Your task to perform on an android device: Go to notification settings Image 0: 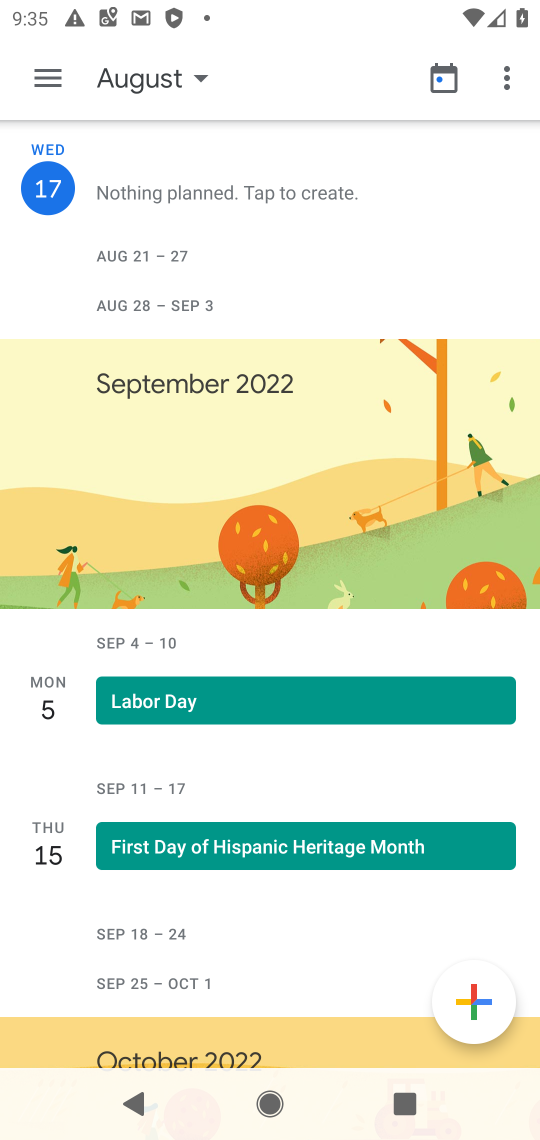
Step 0: press home button
Your task to perform on an android device: Go to notification settings Image 1: 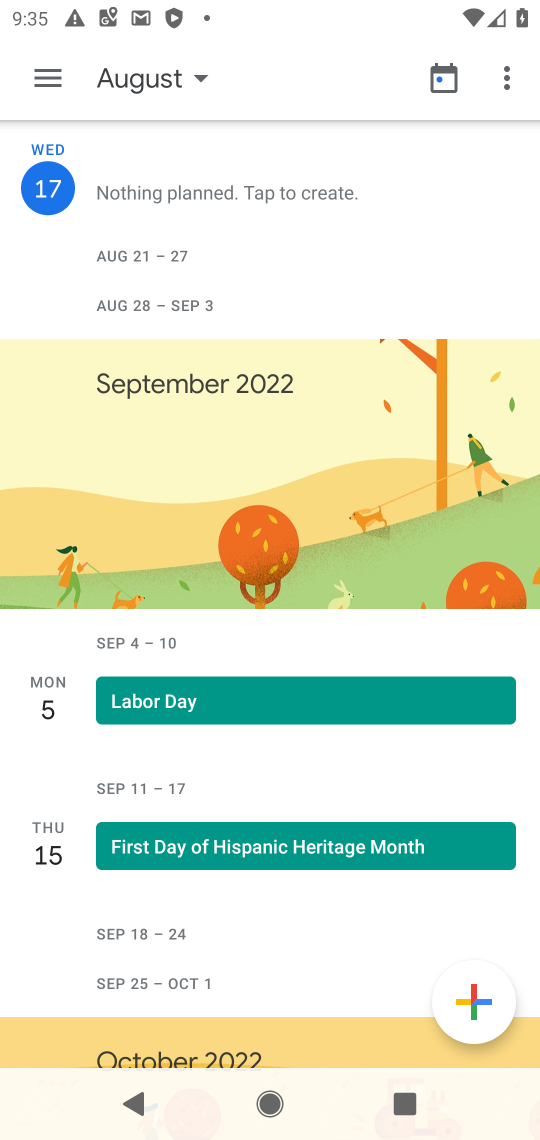
Step 1: press home button
Your task to perform on an android device: Go to notification settings Image 2: 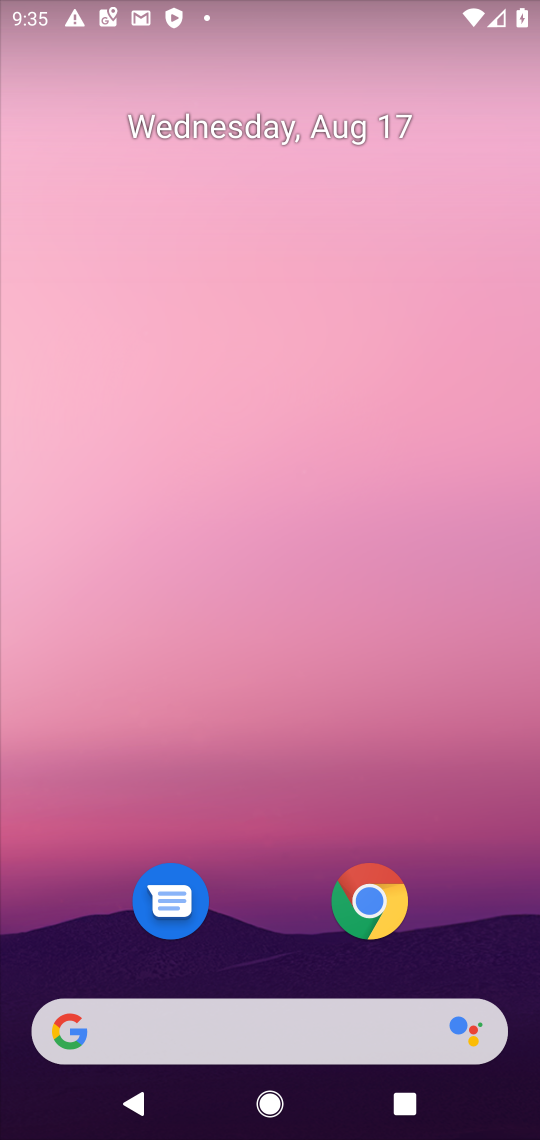
Step 2: drag from (308, 918) to (344, 29)
Your task to perform on an android device: Go to notification settings Image 3: 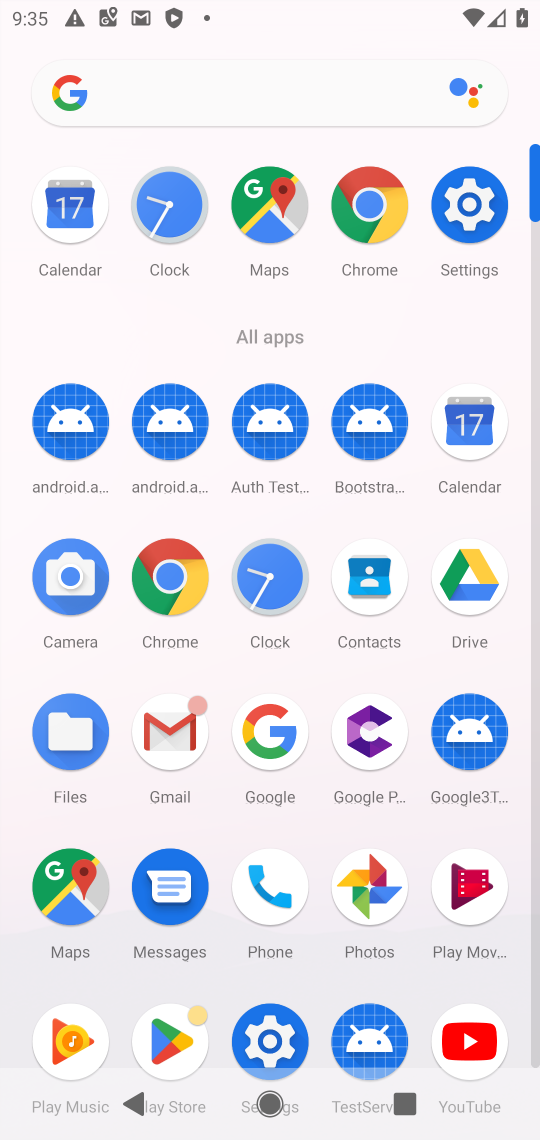
Step 3: click (261, 1026)
Your task to perform on an android device: Go to notification settings Image 4: 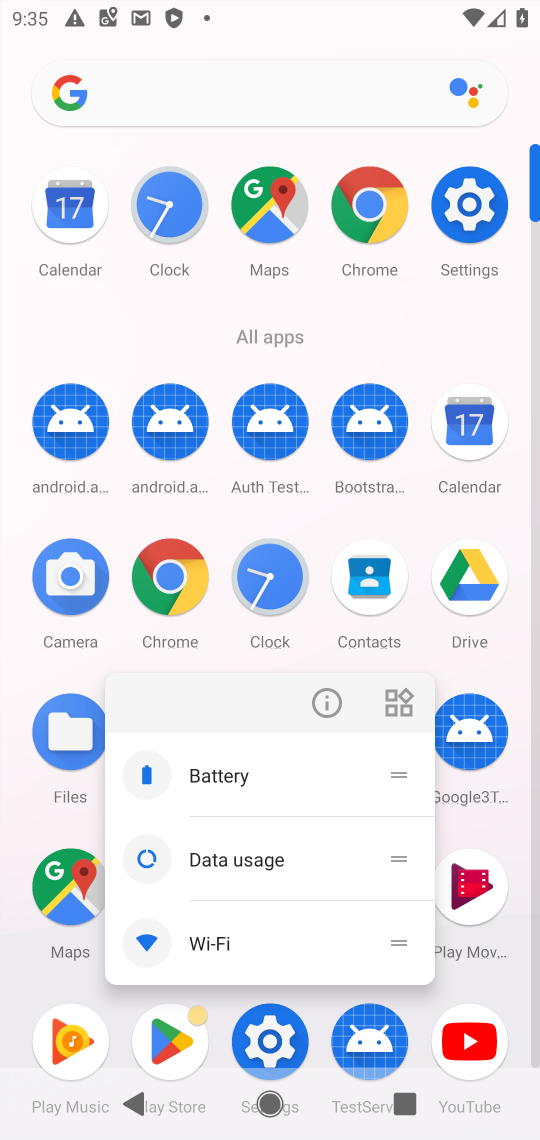
Step 4: click (264, 1030)
Your task to perform on an android device: Go to notification settings Image 5: 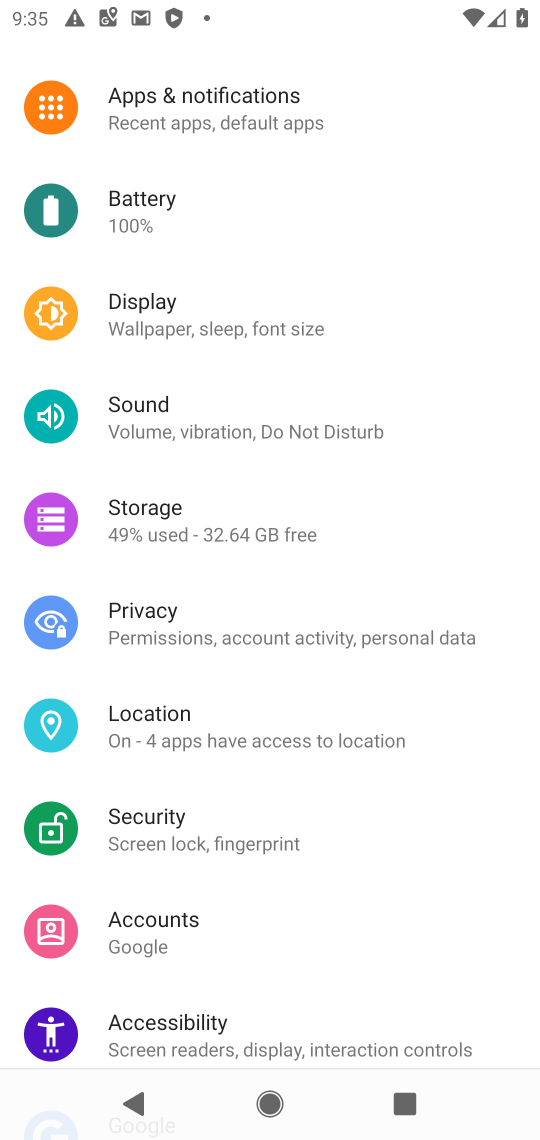
Step 5: click (304, 118)
Your task to perform on an android device: Go to notification settings Image 6: 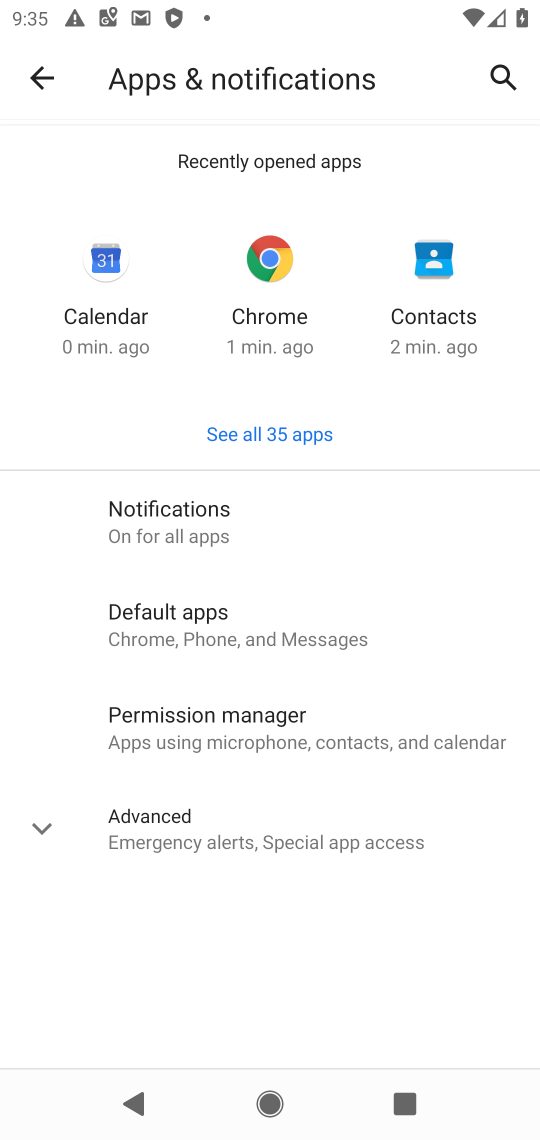
Step 6: click (375, 537)
Your task to perform on an android device: Go to notification settings Image 7: 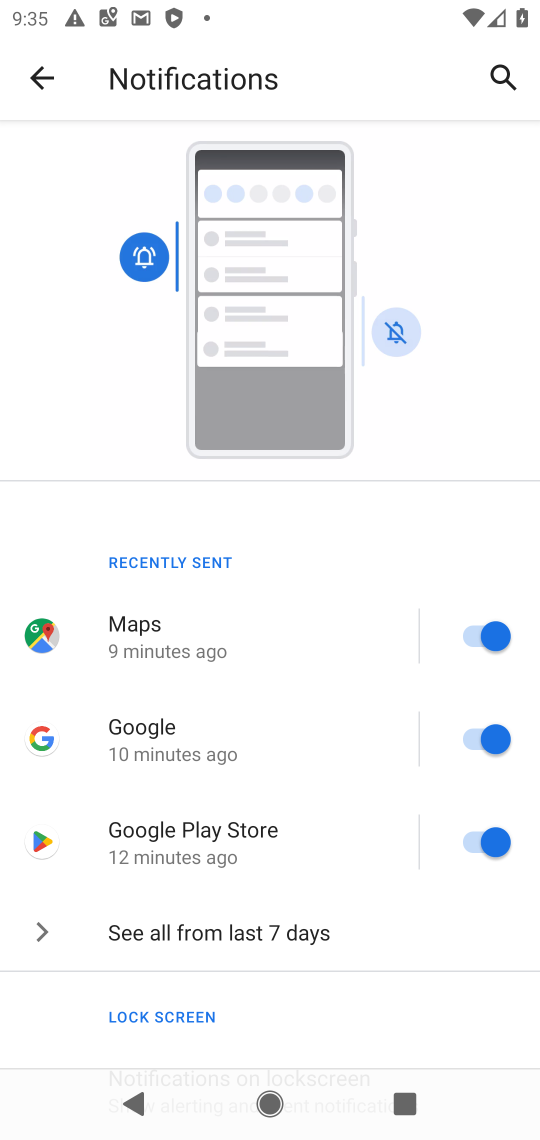
Step 7: task complete